Your task to perform on an android device: clear history in the chrome app Image 0: 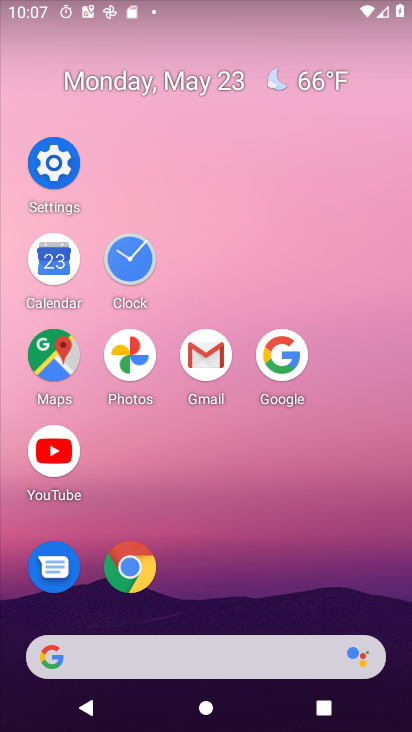
Step 0: click (146, 586)
Your task to perform on an android device: clear history in the chrome app Image 1: 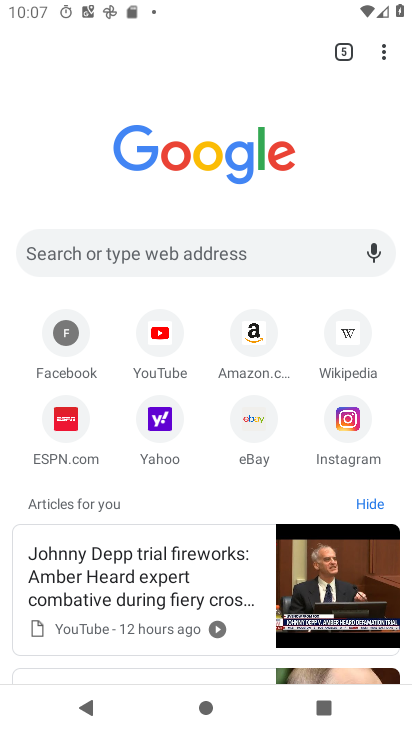
Step 1: click (393, 52)
Your task to perform on an android device: clear history in the chrome app Image 2: 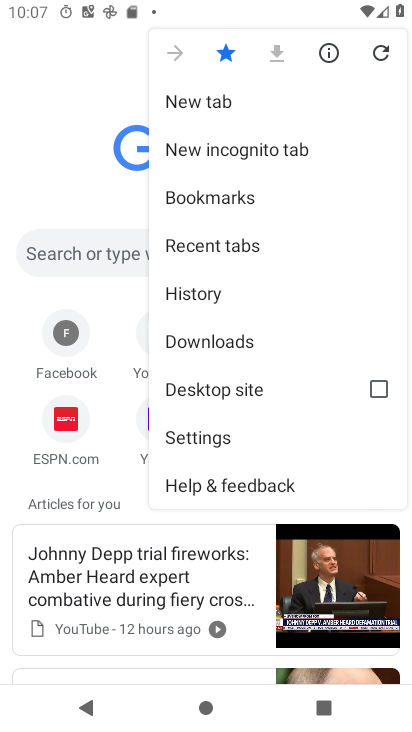
Step 2: click (224, 290)
Your task to perform on an android device: clear history in the chrome app Image 3: 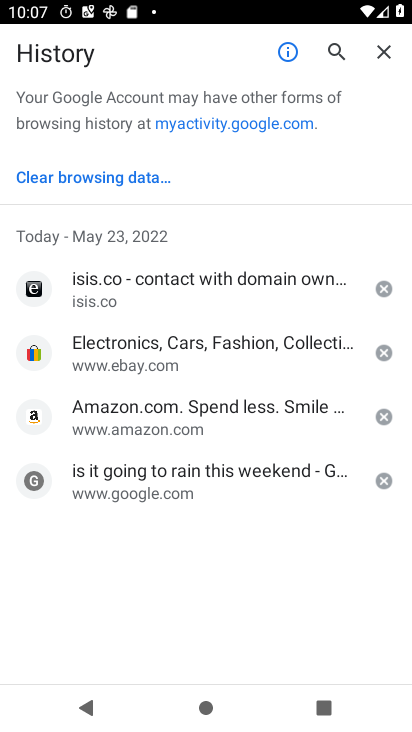
Step 3: click (104, 179)
Your task to perform on an android device: clear history in the chrome app Image 4: 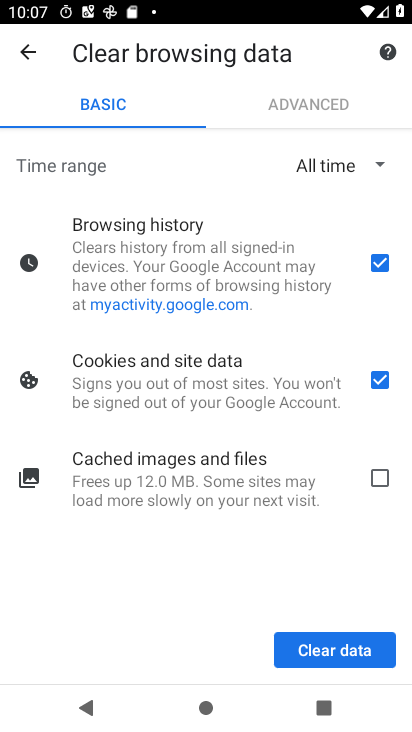
Step 4: click (319, 653)
Your task to perform on an android device: clear history in the chrome app Image 5: 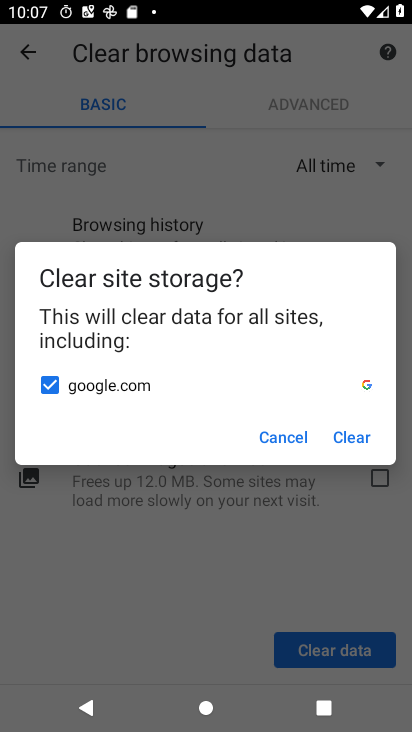
Step 5: click (368, 457)
Your task to perform on an android device: clear history in the chrome app Image 6: 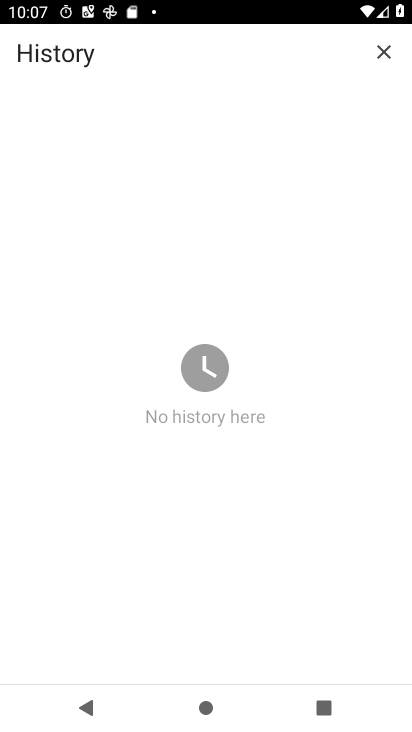
Step 6: task complete